Your task to perform on an android device: Open calendar and show me the third week of next month Image 0: 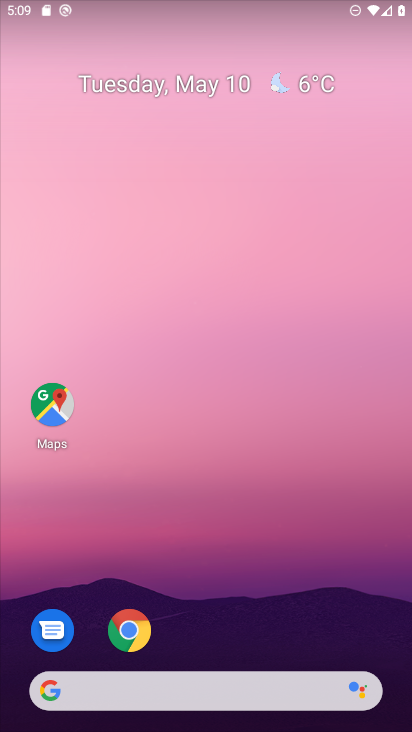
Step 0: drag from (367, 577) to (243, 16)
Your task to perform on an android device: Open calendar and show me the third week of next month Image 1: 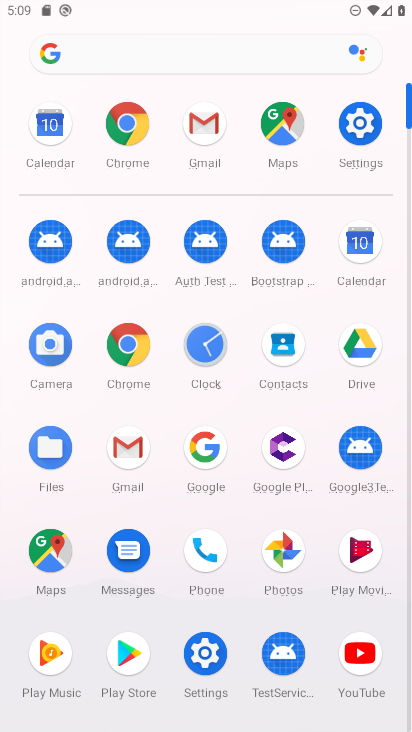
Step 1: click (353, 237)
Your task to perform on an android device: Open calendar and show me the third week of next month Image 2: 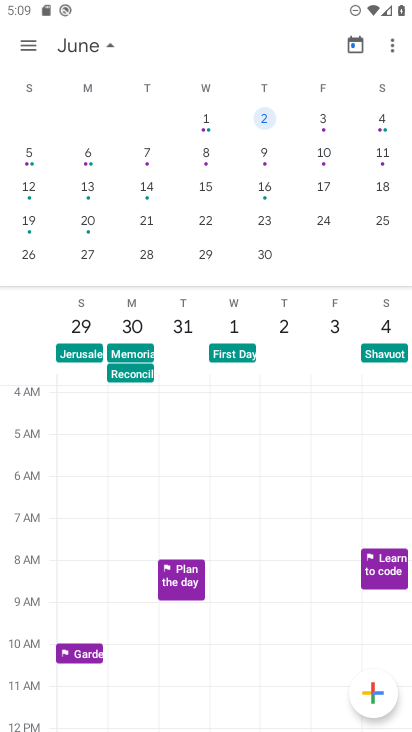
Step 2: click (344, 176)
Your task to perform on an android device: Open calendar and show me the third week of next month Image 3: 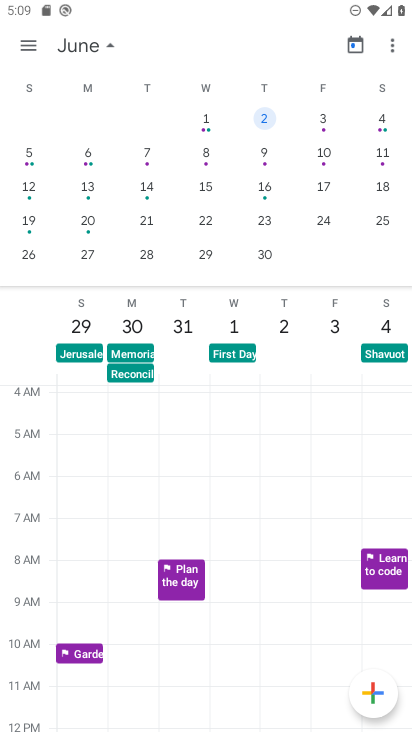
Step 3: click (150, 220)
Your task to perform on an android device: Open calendar and show me the third week of next month Image 4: 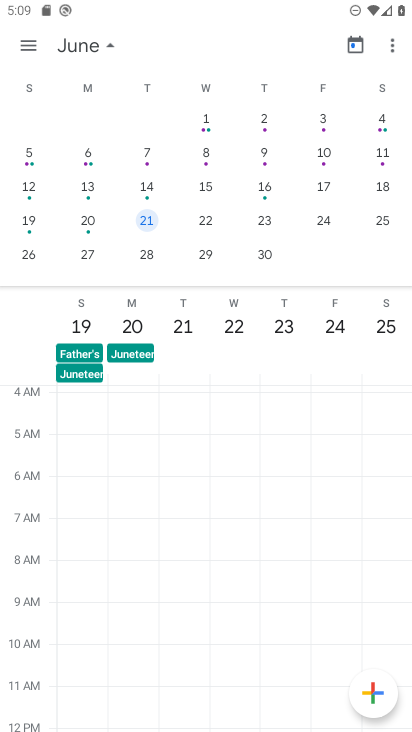
Step 4: click (30, 223)
Your task to perform on an android device: Open calendar and show me the third week of next month Image 5: 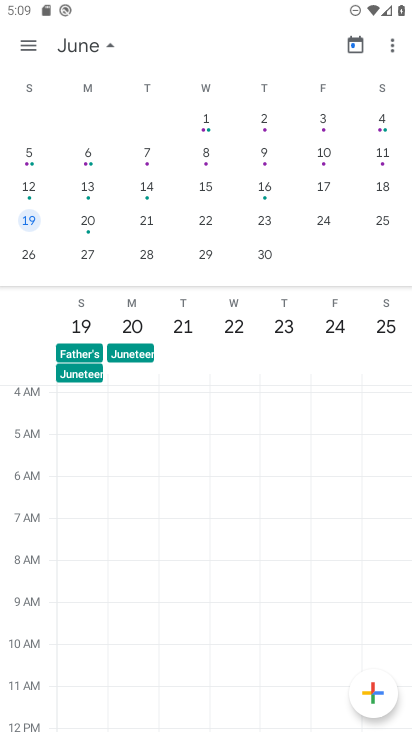
Step 5: task complete